Your task to perform on an android device: turn off notifications in google photos Image 0: 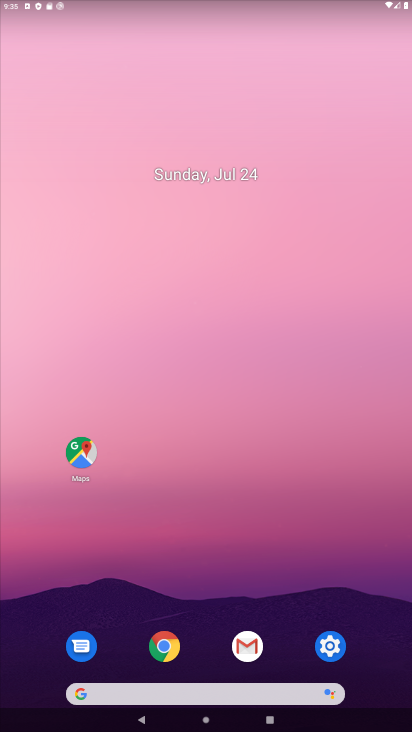
Step 0: drag from (265, 717) to (210, 145)
Your task to perform on an android device: turn off notifications in google photos Image 1: 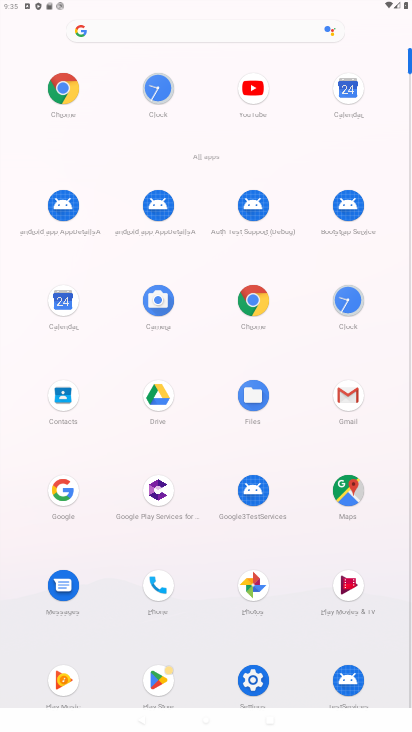
Step 1: click (261, 575)
Your task to perform on an android device: turn off notifications in google photos Image 2: 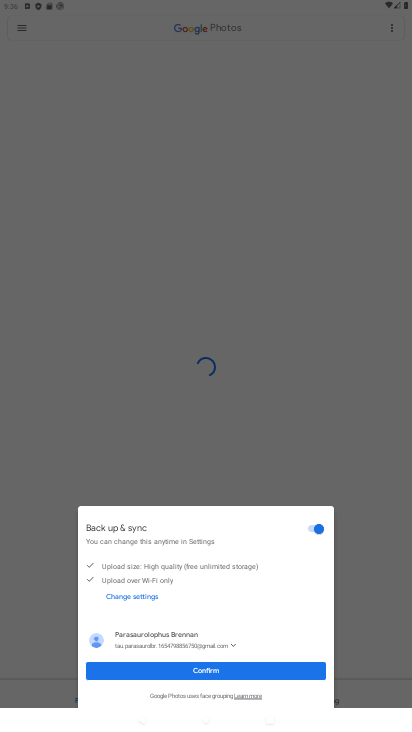
Step 2: click (242, 671)
Your task to perform on an android device: turn off notifications in google photos Image 3: 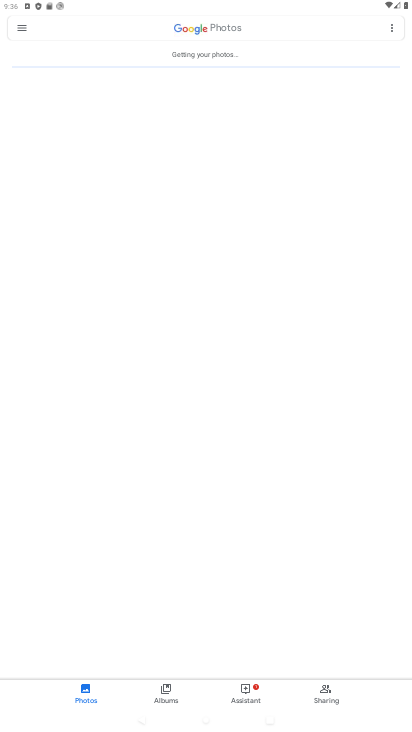
Step 3: click (16, 27)
Your task to perform on an android device: turn off notifications in google photos Image 4: 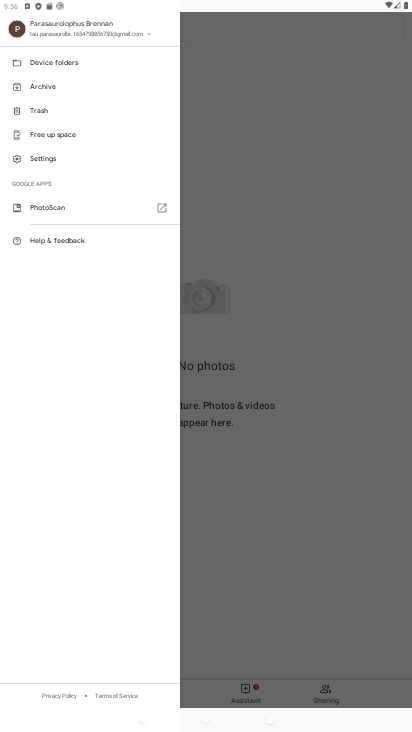
Step 4: click (50, 161)
Your task to perform on an android device: turn off notifications in google photos Image 5: 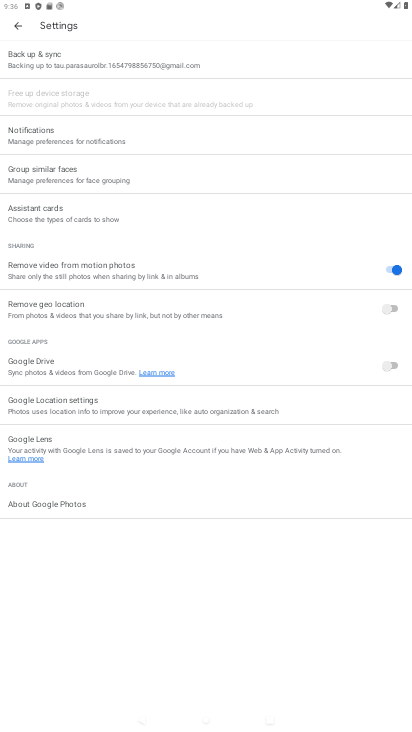
Step 5: click (90, 145)
Your task to perform on an android device: turn off notifications in google photos Image 6: 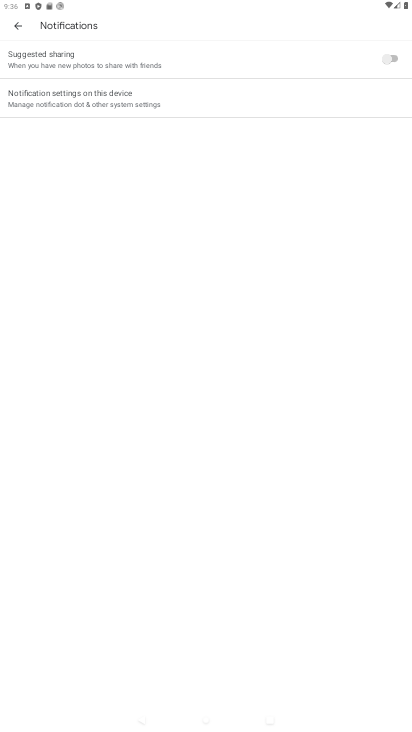
Step 6: click (247, 97)
Your task to perform on an android device: turn off notifications in google photos Image 7: 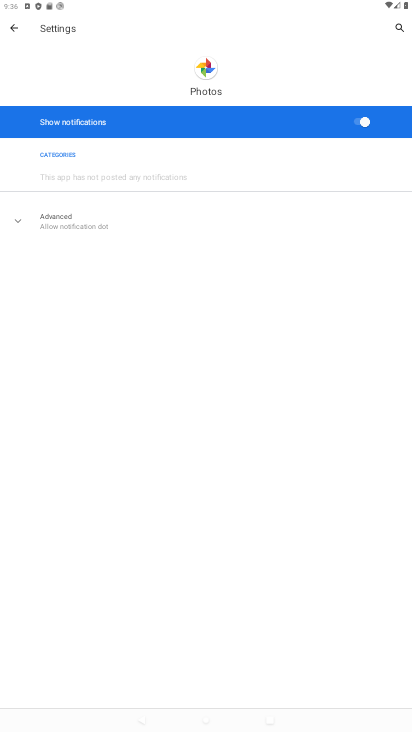
Step 7: click (347, 120)
Your task to perform on an android device: turn off notifications in google photos Image 8: 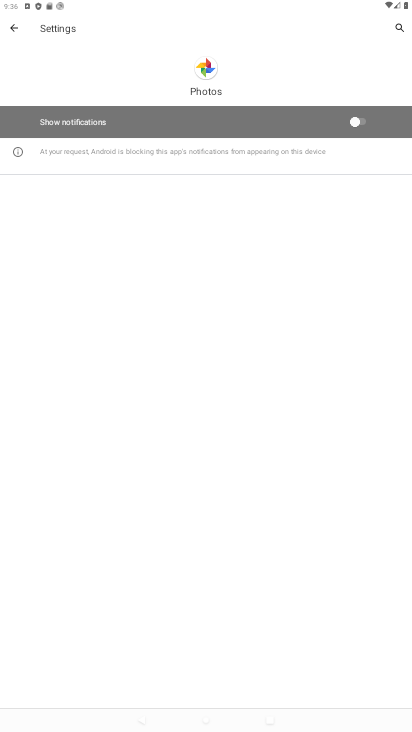
Step 8: task complete